Your task to perform on an android device: delete a single message in the gmail app Image 0: 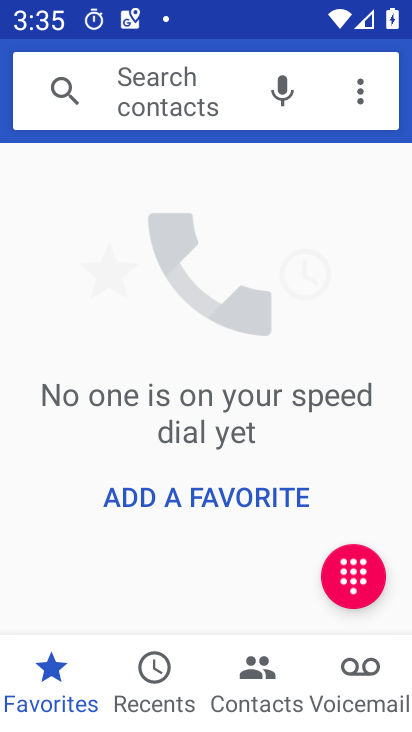
Step 0: press home button
Your task to perform on an android device: delete a single message in the gmail app Image 1: 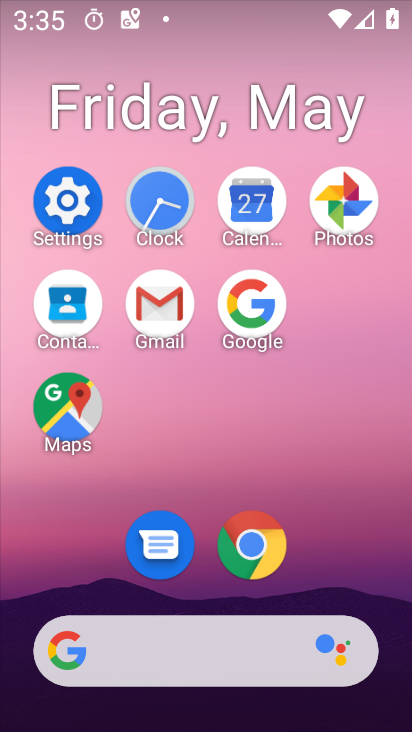
Step 1: click (138, 303)
Your task to perform on an android device: delete a single message in the gmail app Image 2: 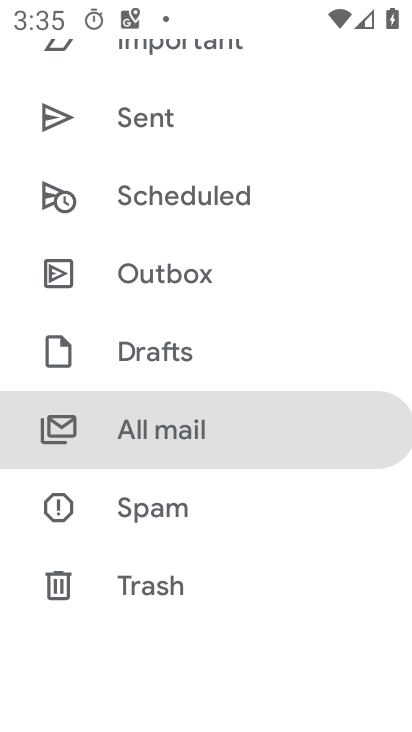
Step 2: click (185, 426)
Your task to perform on an android device: delete a single message in the gmail app Image 3: 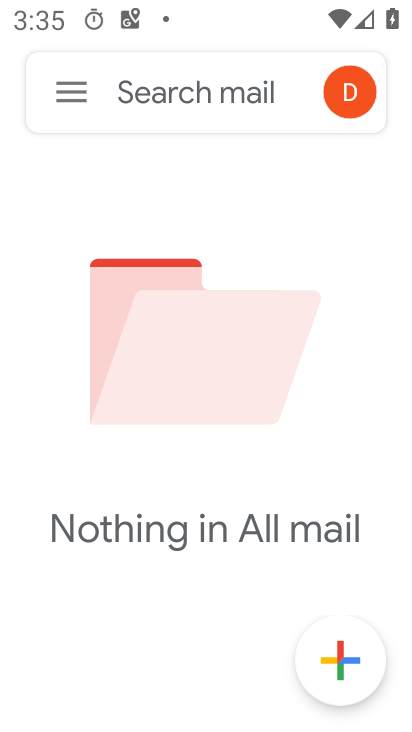
Step 3: task complete